Your task to perform on an android device: change text size in settings app Image 0: 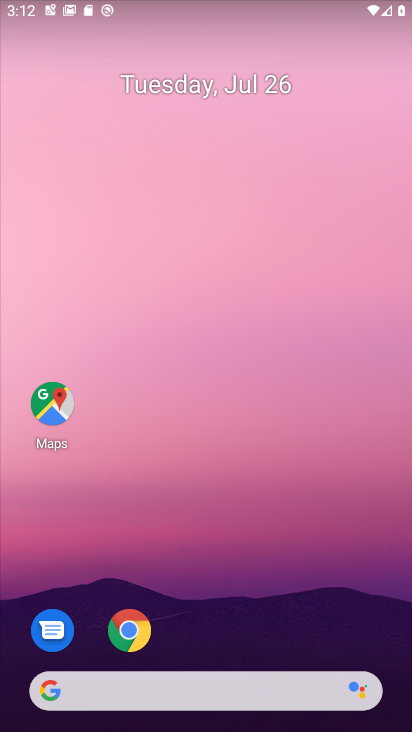
Step 0: drag from (182, 659) to (200, 147)
Your task to perform on an android device: change text size in settings app Image 1: 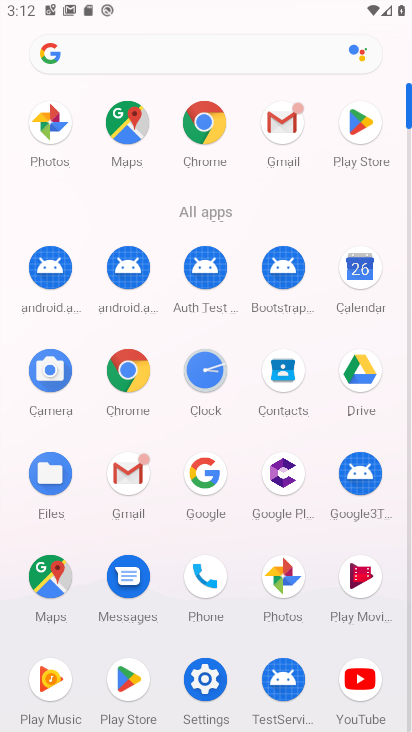
Step 1: click (185, 663)
Your task to perform on an android device: change text size in settings app Image 2: 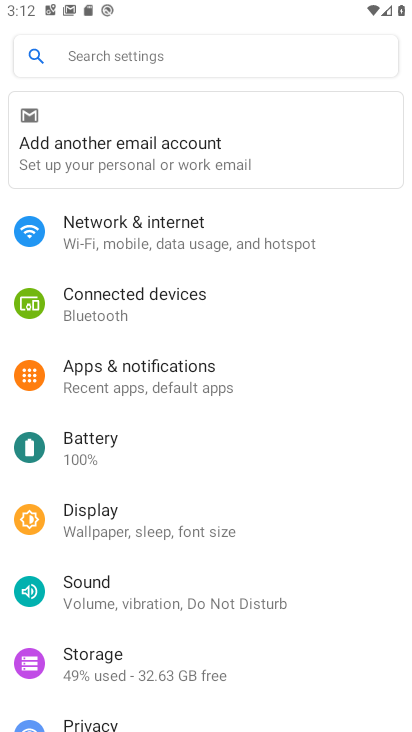
Step 2: drag from (116, 666) to (179, 356)
Your task to perform on an android device: change text size in settings app Image 3: 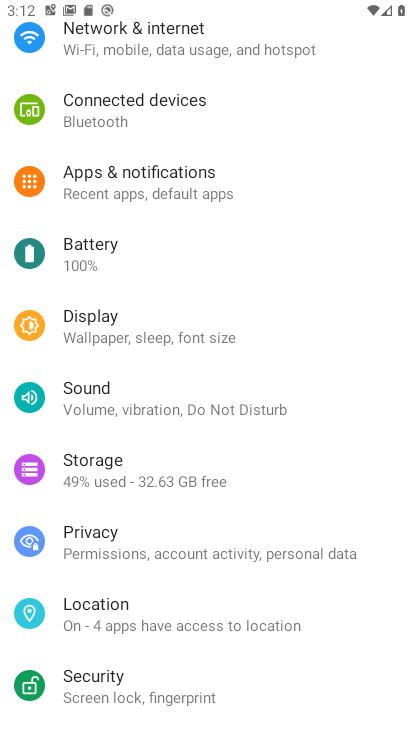
Step 3: click (122, 344)
Your task to perform on an android device: change text size in settings app Image 4: 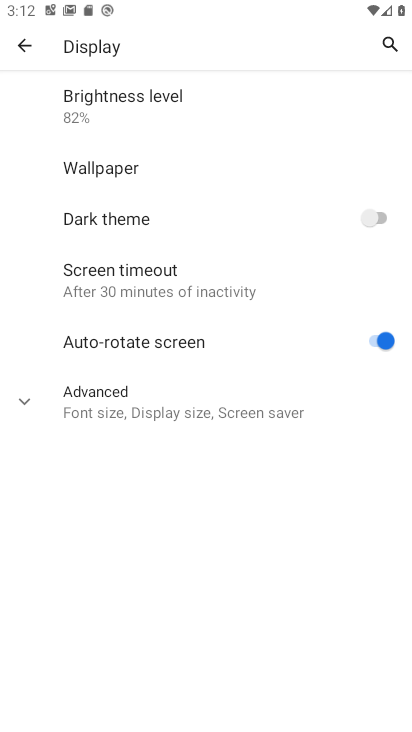
Step 4: click (171, 405)
Your task to perform on an android device: change text size in settings app Image 5: 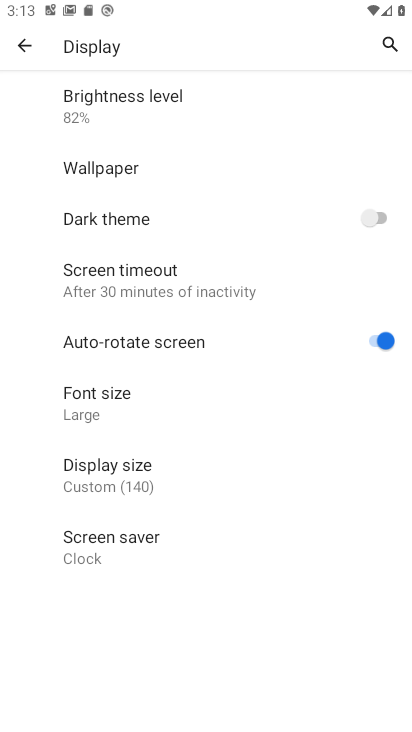
Step 5: click (171, 405)
Your task to perform on an android device: change text size in settings app Image 6: 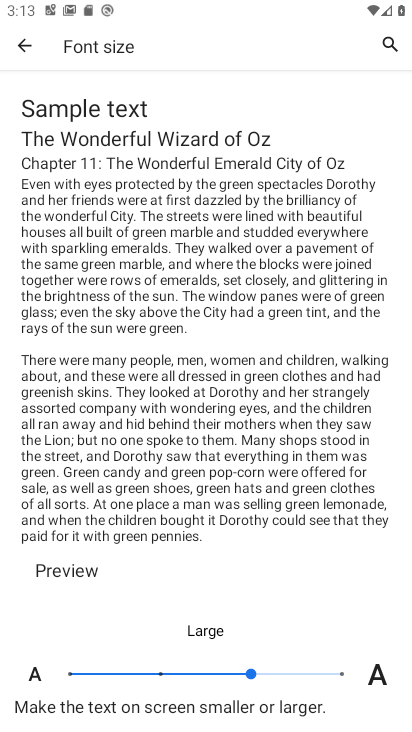
Step 6: click (76, 675)
Your task to perform on an android device: change text size in settings app Image 7: 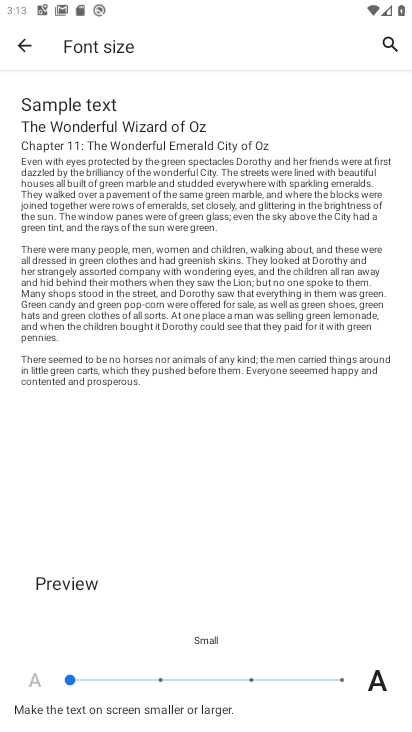
Step 7: task complete